Your task to perform on an android device: Turn on the flashlight Image 0: 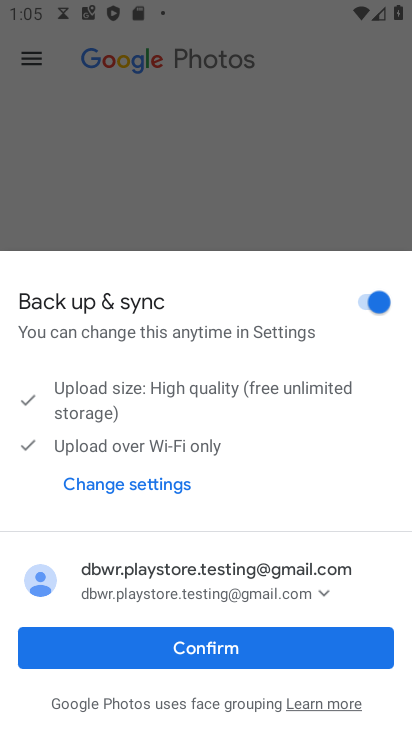
Step 0: press home button
Your task to perform on an android device: Turn on the flashlight Image 1: 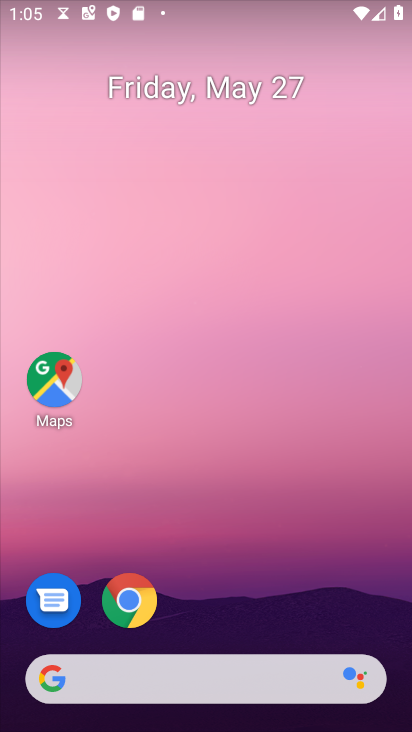
Step 1: drag from (273, 554) to (193, 0)
Your task to perform on an android device: Turn on the flashlight Image 2: 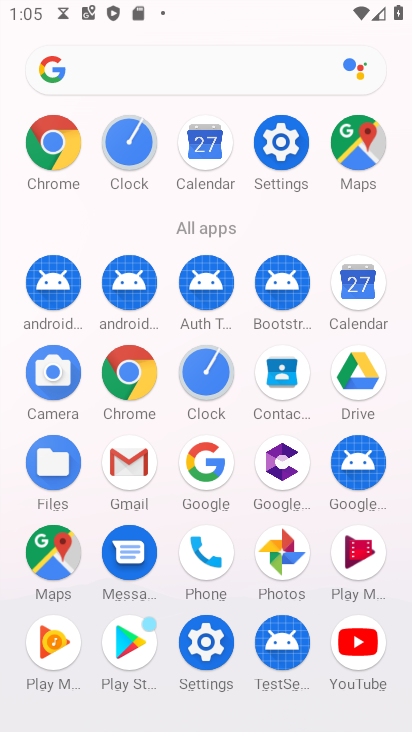
Step 2: click (278, 151)
Your task to perform on an android device: Turn on the flashlight Image 3: 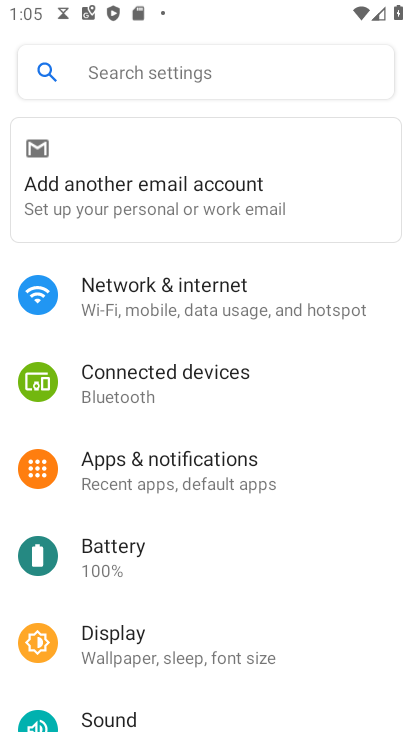
Step 3: click (154, 643)
Your task to perform on an android device: Turn on the flashlight Image 4: 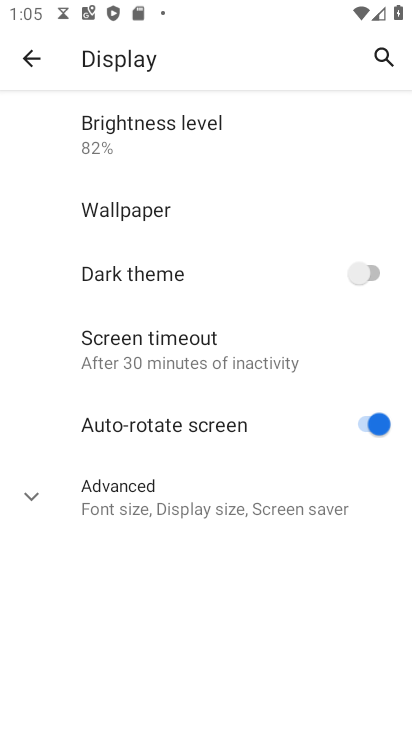
Step 4: click (130, 496)
Your task to perform on an android device: Turn on the flashlight Image 5: 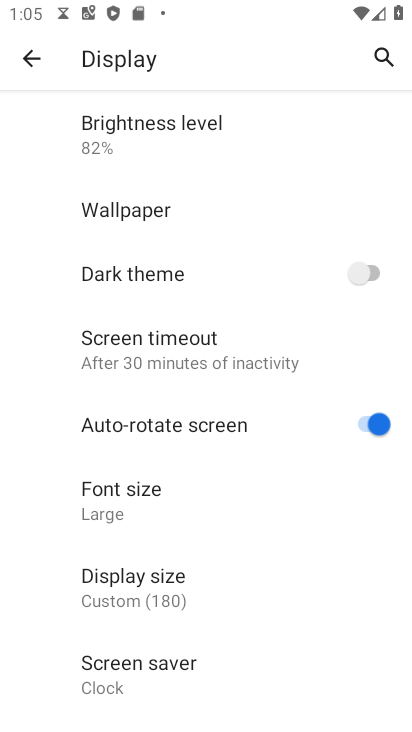
Step 5: task complete